Your task to perform on an android device: Go to Reddit.com Image 0: 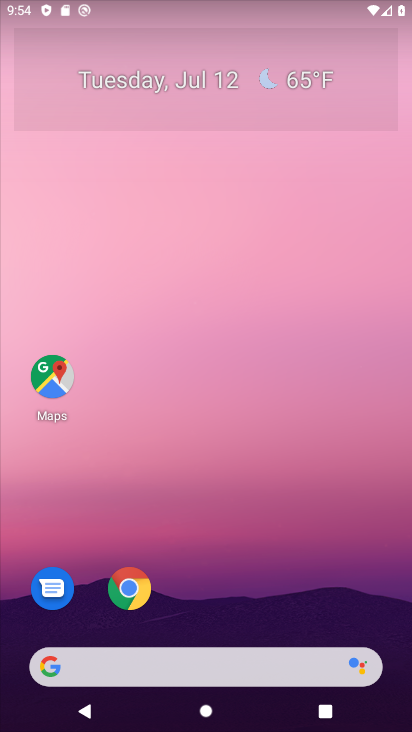
Step 0: click (116, 675)
Your task to perform on an android device: Go to Reddit.com Image 1: 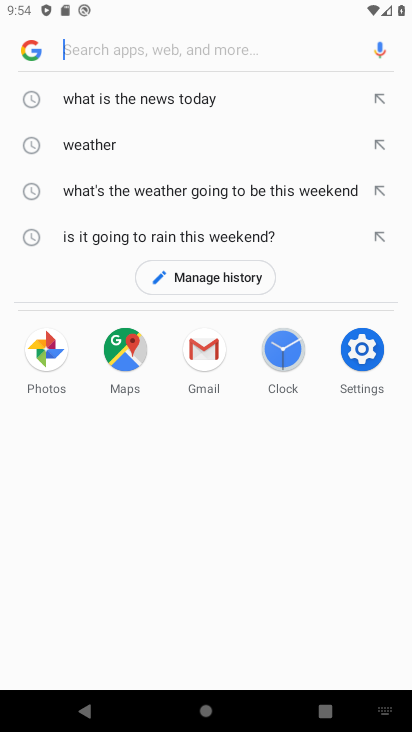
Step 1: type "Reddit.com"
Your task to perform on an android device: Go to Reddit.com Image 2: 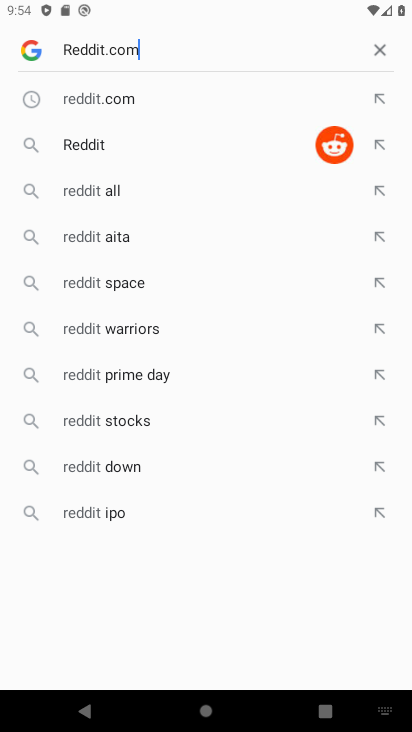
Step 2: type ""
Your task to perform on an android device: Go to Reddit.com Image 3: 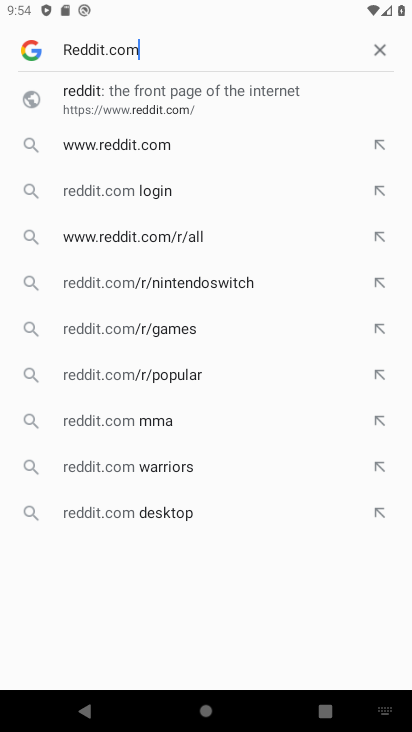
Step 3: click (122, 144)
Your task to perform on an android device: Go to Reddit.com Image 4: 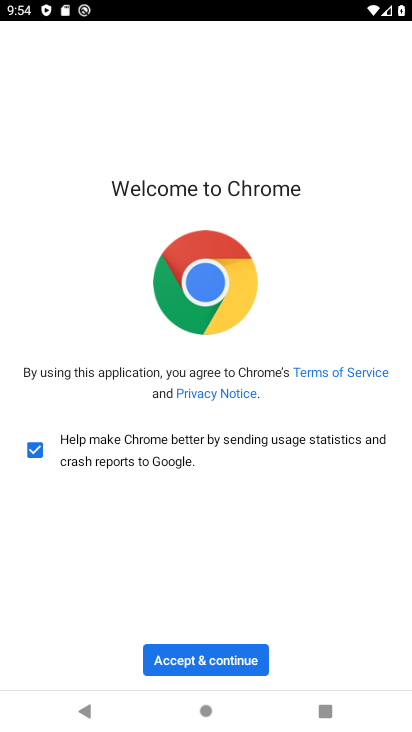
Step 4: click (170, 661)
Your task to perform on an android device: Go to Reddit.com Image 5: 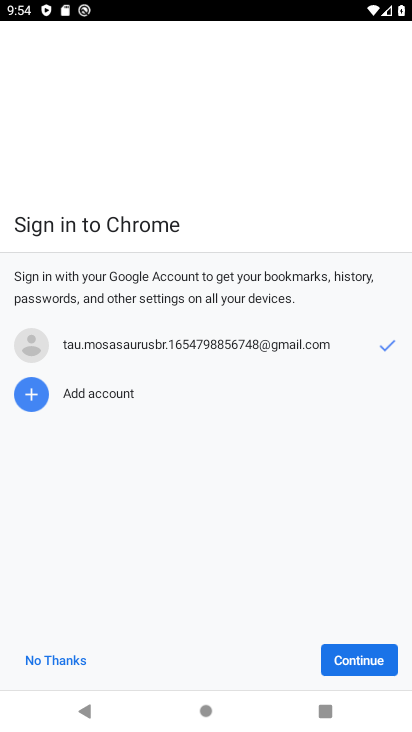
Step 5: click (329, 664)
Your task to perform on an android device: Go to Reddit.com Image 6: 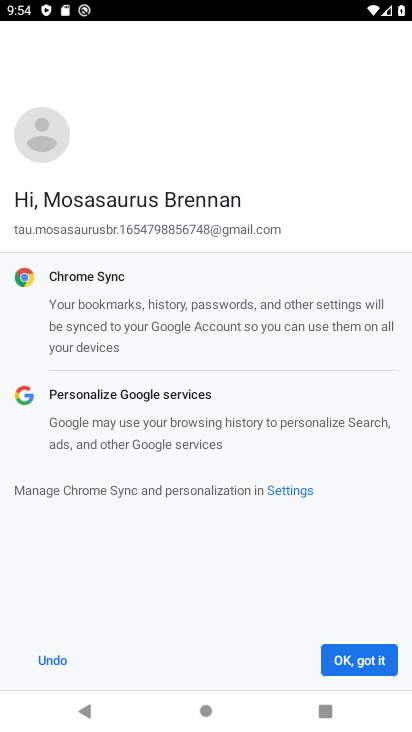
Step 6: click (337, 663)
Your task to perform on an android device: Go to Reddit.com Image 7: 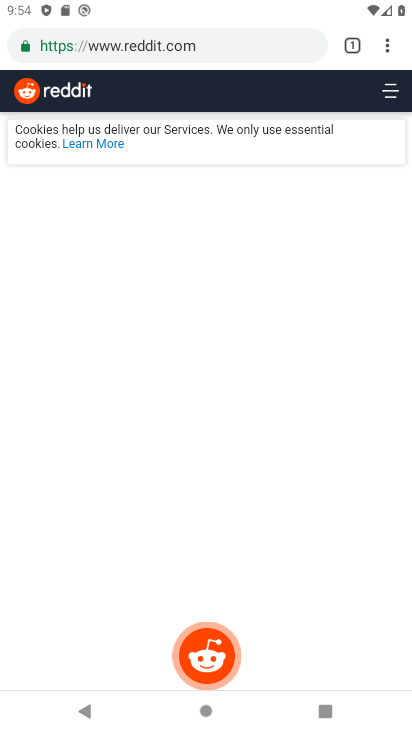
Step 7: task complete